Your task to perform on an android device: Open Chrome and go to the settings page Image 0: 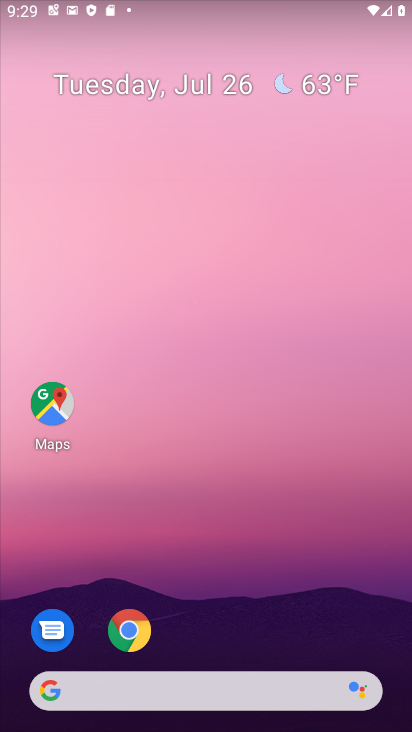
Step 0: click (125, 627)
Your task to perform on an android device: Open Chrome and go to the settings page Image 1: 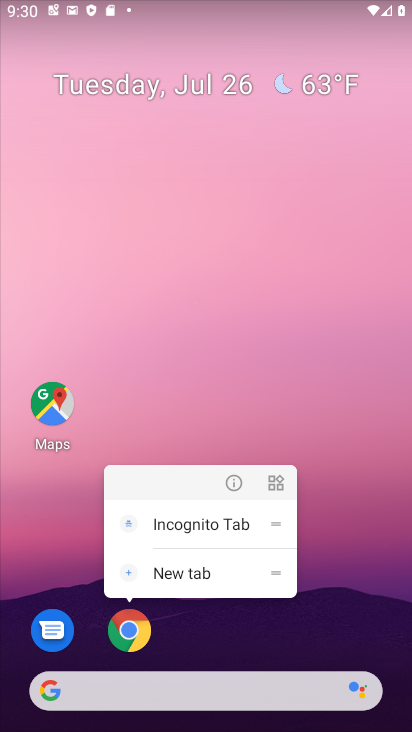
Step 1: click (124, 623)
Your task to perform on an android device: Open Chrome and go to the settings page Image 2: 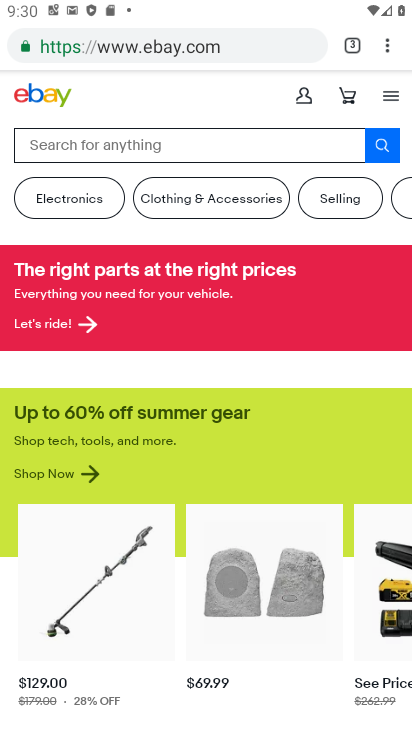
Step 2: click (387, 37)
Your task to perform on an android device: Open Chrome and go to the settings page Image 3: 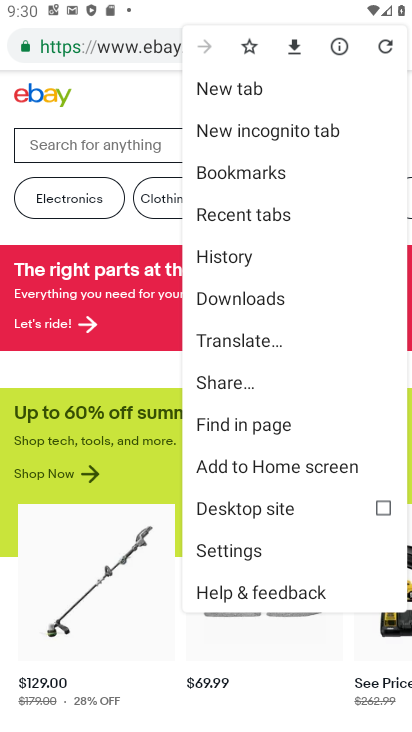
Step 3: click (264, 548)
Your task to perform on an android device: Open Chrome and go to the settings page Image 4: 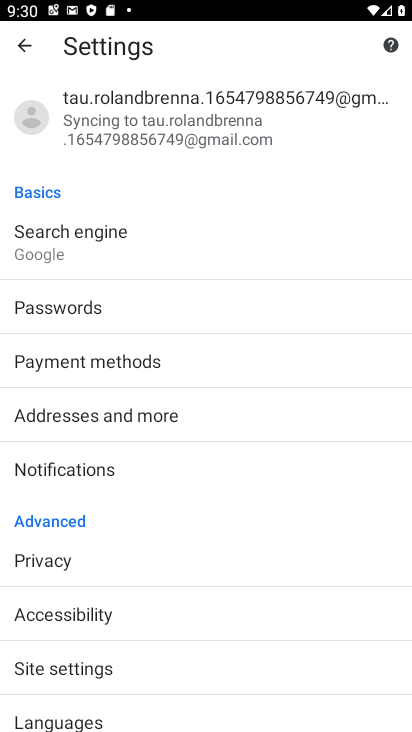
Step 4: task complete